Your task to perform on an android device: What is the recent news? Image 0: 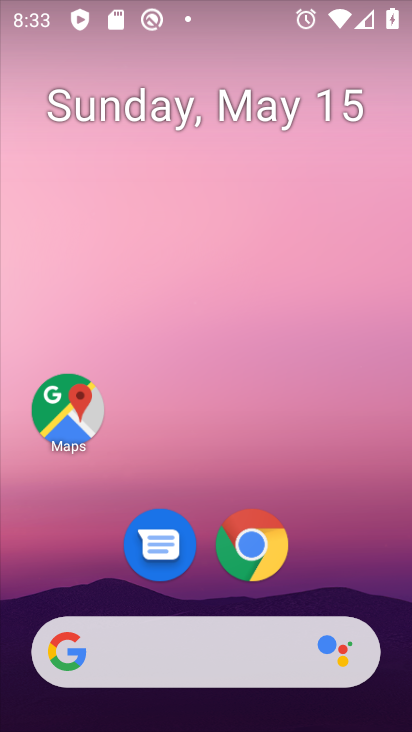
Step 0: drag from (178, 229) to (398, 324)
Your task to perform on an android device: What is the recent news? Image 1: 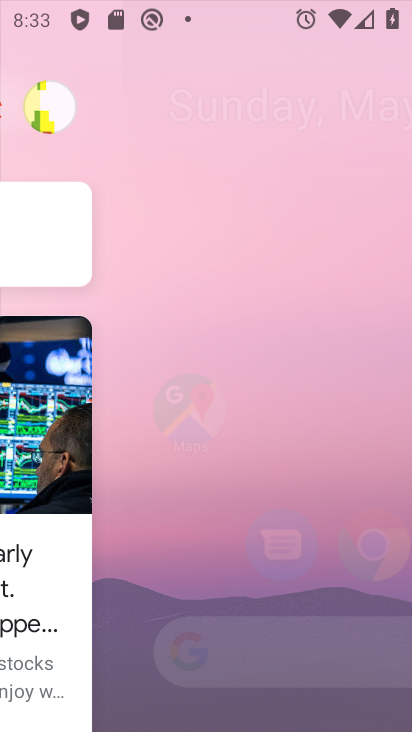
Step 1: click (376, 329)
Your task to perform on an android device: What is the recent news? Image 2: 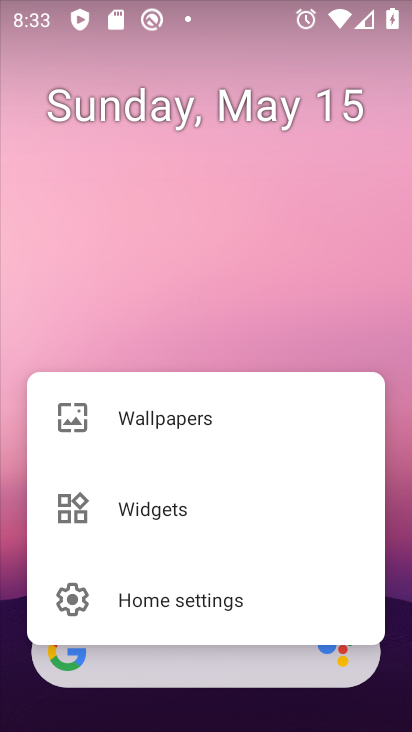
Step 2: task complete